Your task to perform on an android device: empty trash in the gmail app Image 0: 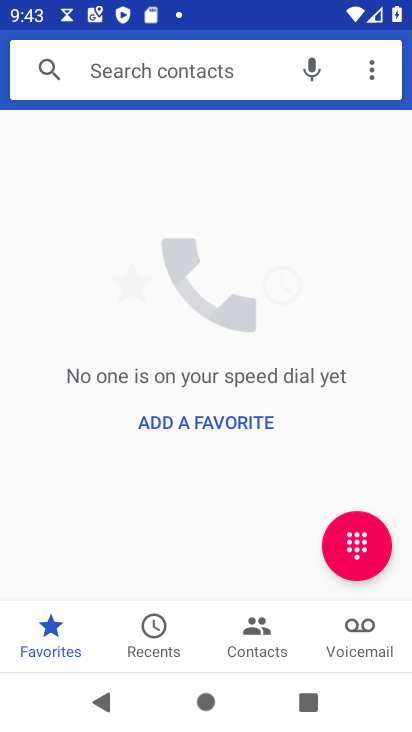
Step 0: press home button
Your task to perform on an android device: empty trash in the gmail app Image 1: 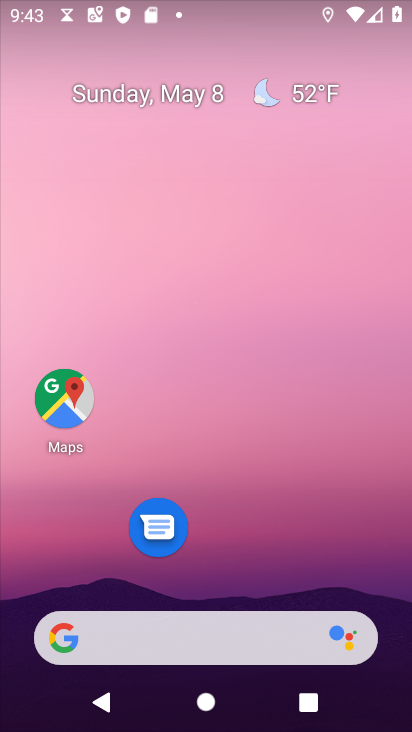
Step 1: drag from (244, 499) to (195, 63)
Your task to perform on an android device: empty trash in the gmail app Image 2: 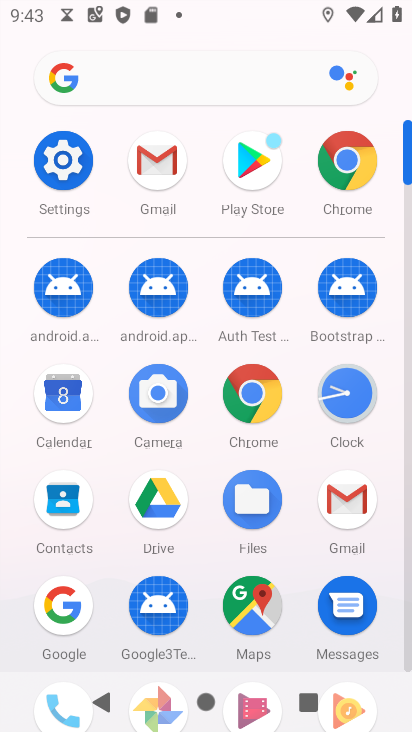
Step 2: click (156, 160)
Your task to perform on an android device: empty trash in the gmail app Image 3: 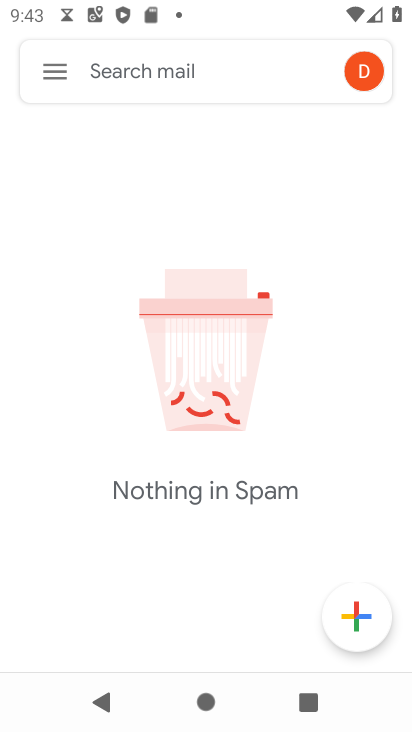
Step 3: click (45, 67)
Your task to perform on an android device: empty trash in the gmail app Image 4: 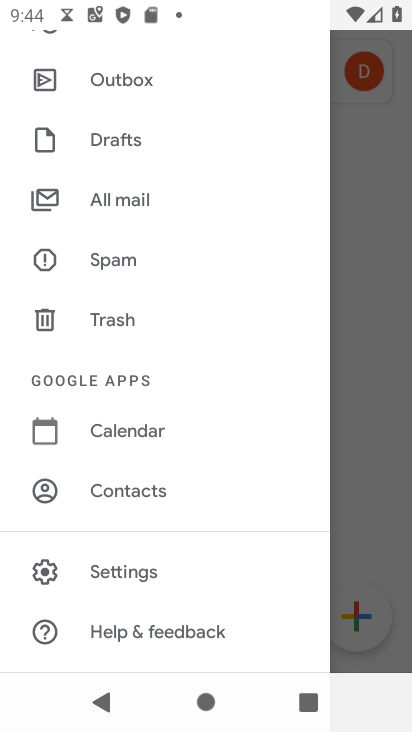
Step 4: click (106, 315)
Your task to perform on an android device: empty trash in the gmail app Image 5: 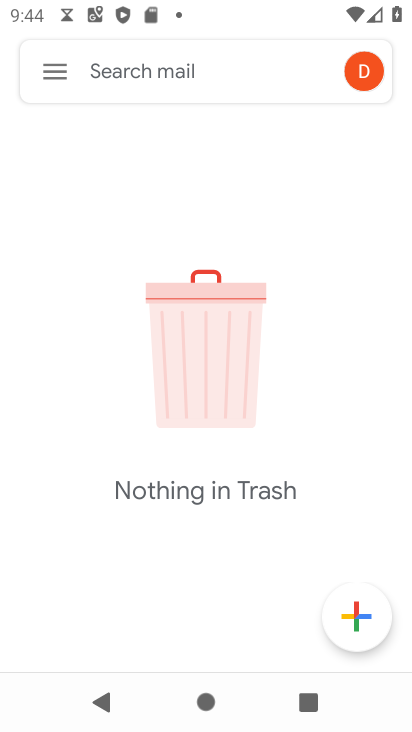
Step 5: task complete